Your task to perform on an android device: Clear the shopping cart on walmart. Add usb-a to the cart on walmart Image 0: 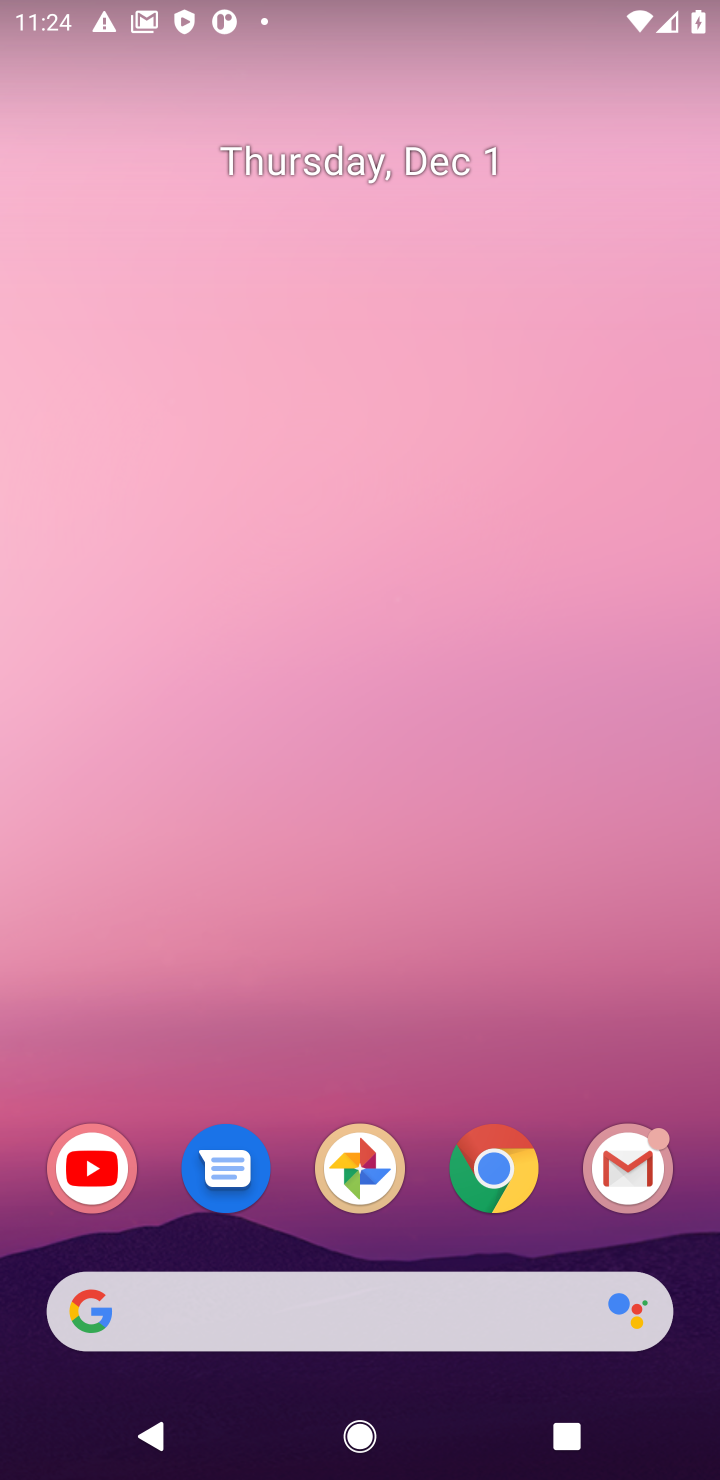
Step 0: click (500, 1173)
Your task to perform on an android device: Clear the shopping cart on walmart. Add usb-a to the cart on walmart Image 1: 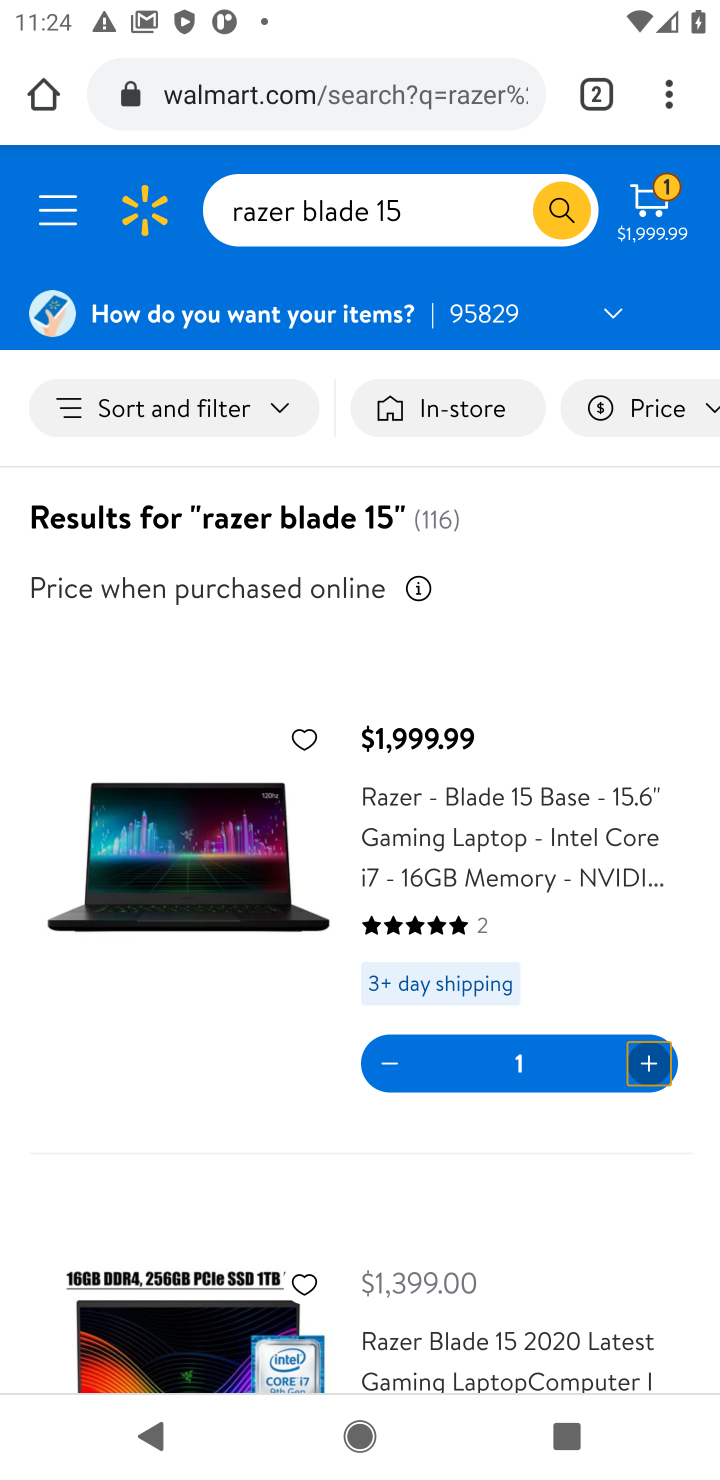
Step 1: click (658, 221)
Your task to perform on an android device: Clear the shopping cart on walmart. Add usb-a to the cart on walmart Image 2: 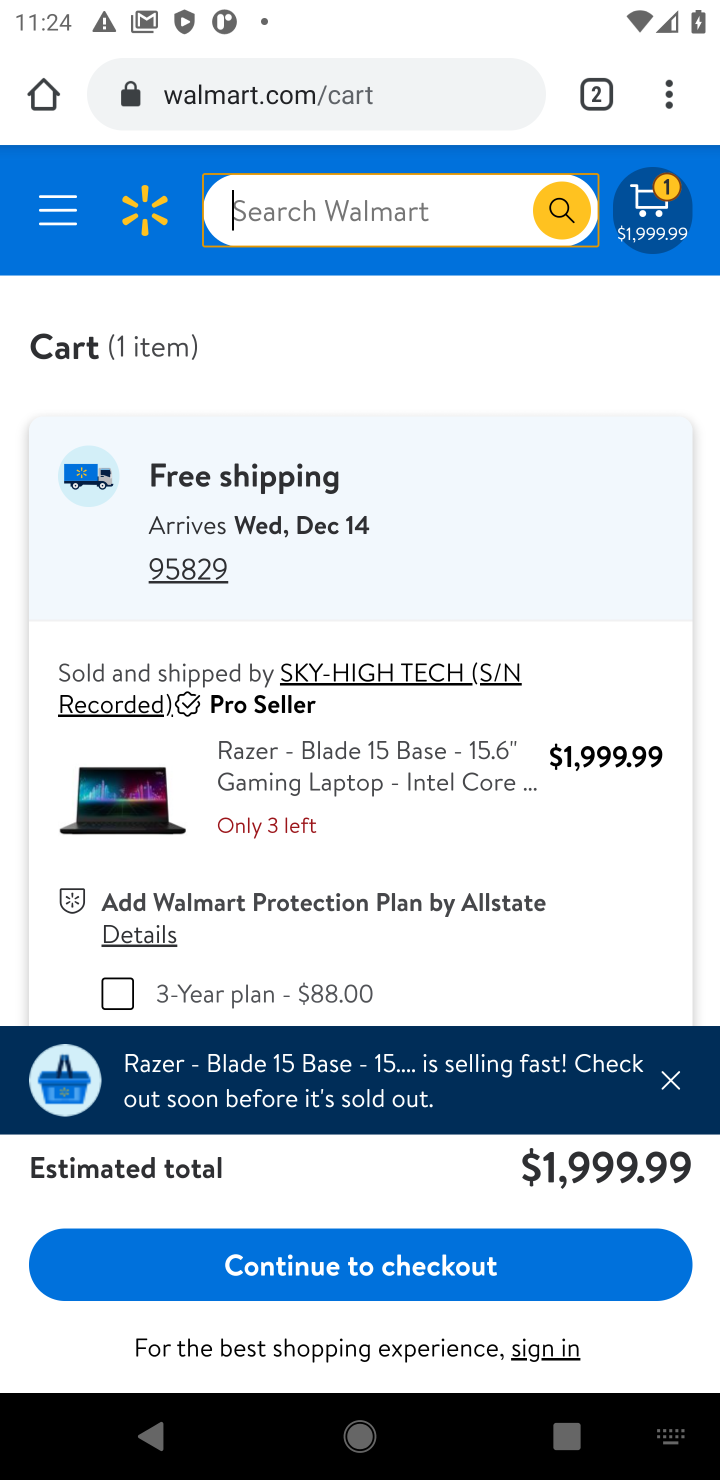
Step 2: drag from (489, 613) to (460, 318)
Your task to perform on an android device: Clear the shopping cart on walmart. Add usb-a to the cart on walmart Image 3: 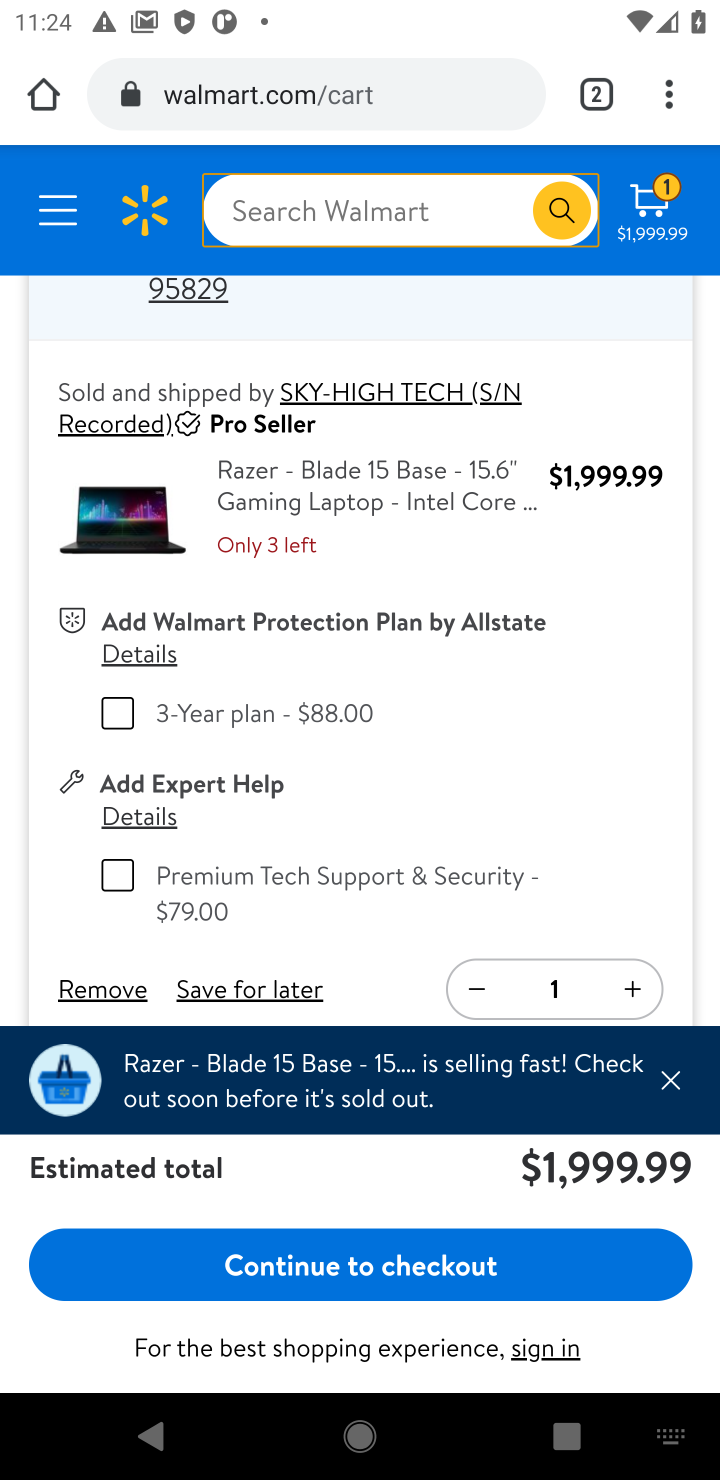
Step 3: drag from (653, 744) to (595, 384)
Your task to perform on an android device: Clear the shopping cart on walmart. Add usb-a to the cart on walmart Image 4: 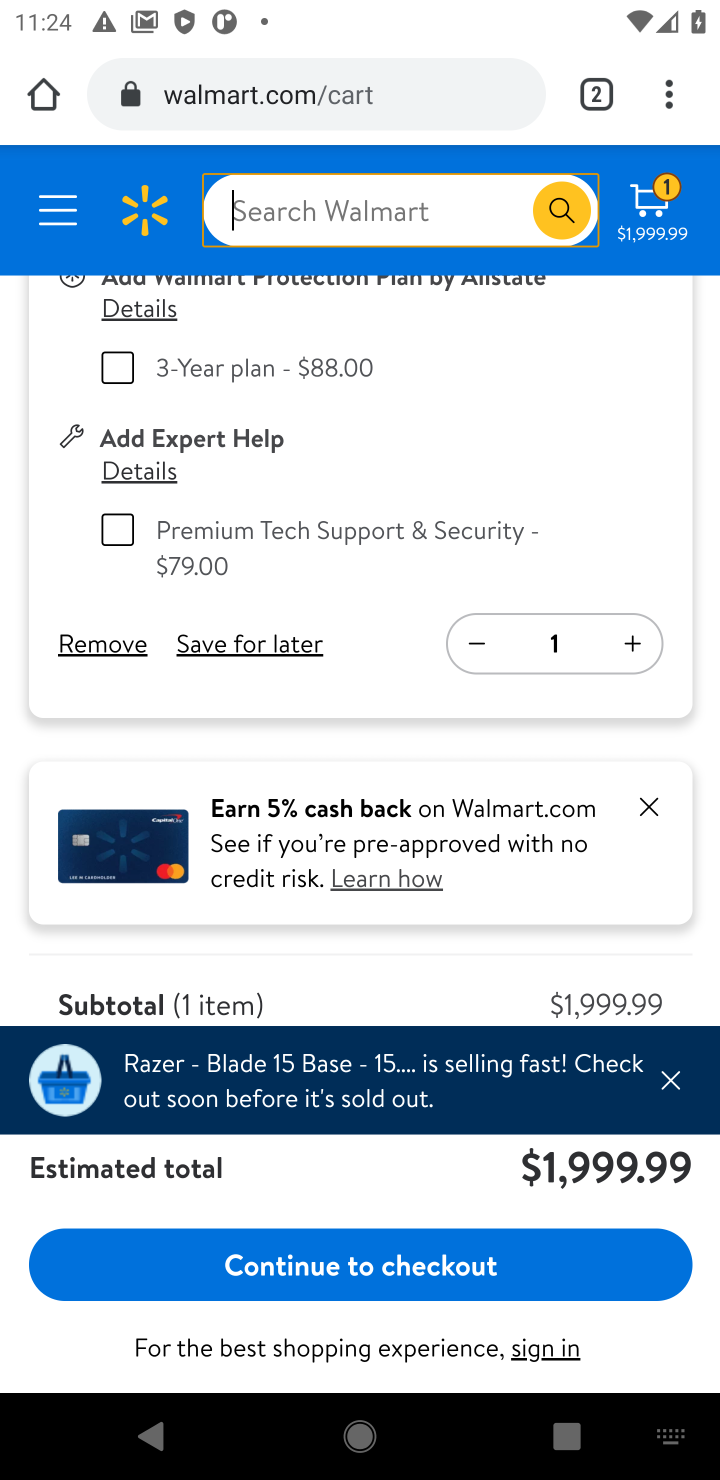
Step 4: click (90, 650)
Your task to perform on an android device: Clear the shopping cart on walmart. Add usb-a to the cart on walmart Image 5: 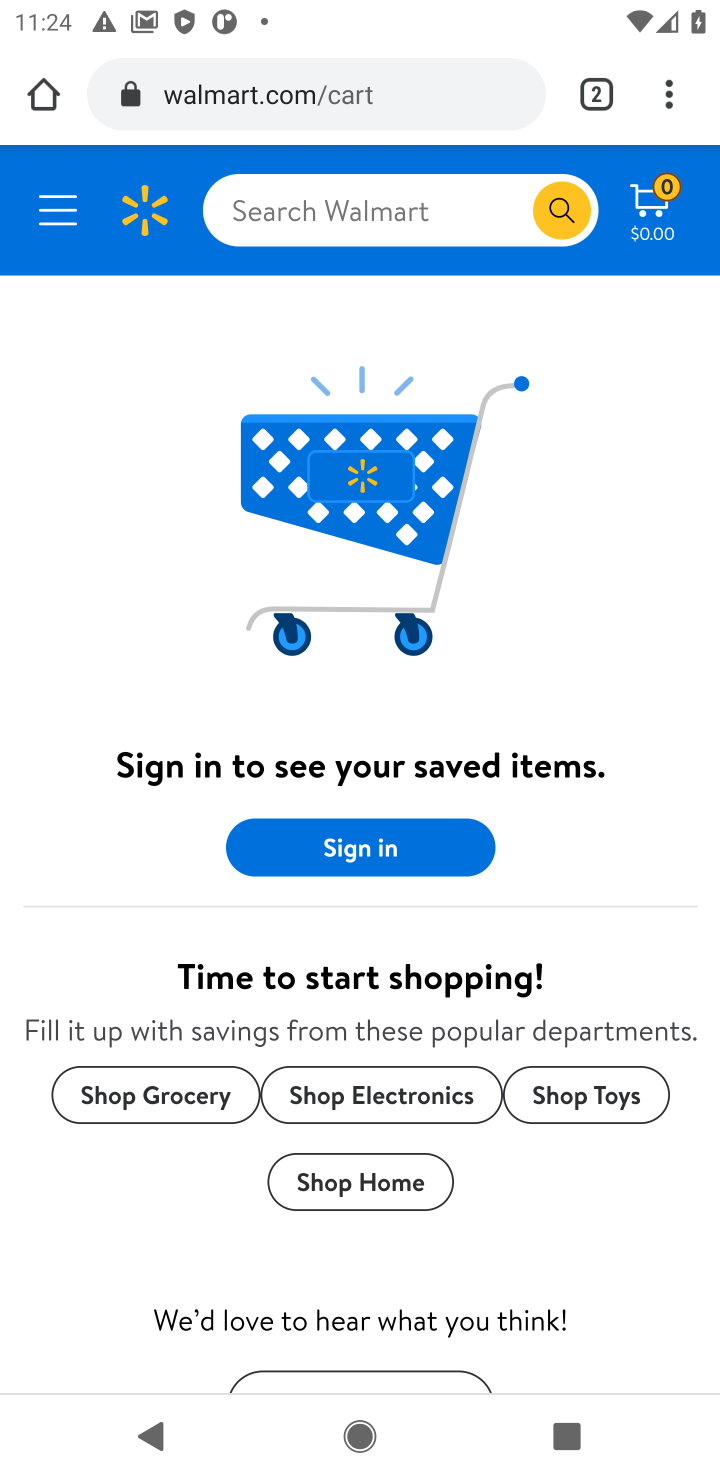
Step 5: click (304, 214)
Your task to perform on an android device: Clear the shopping cart on walmart. Add usb-a to the cart on walmart Image 6: 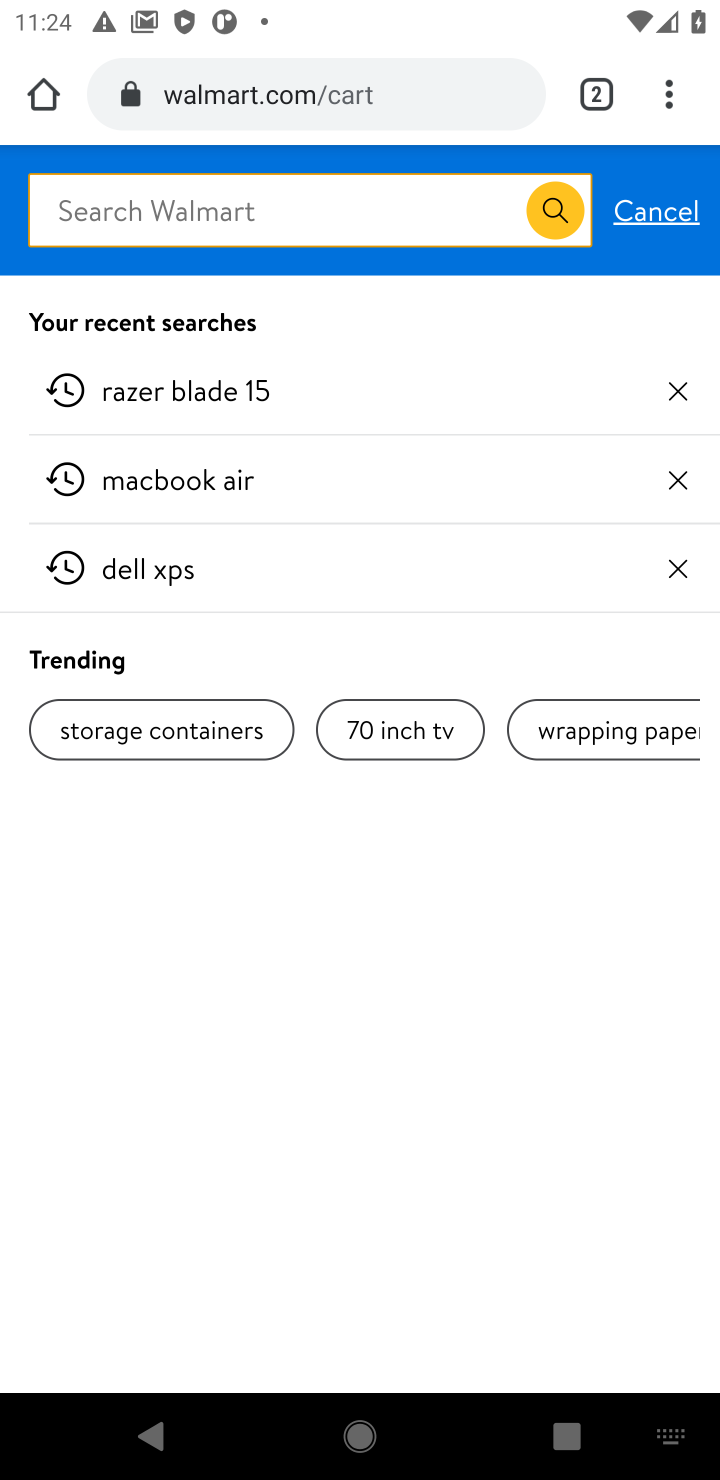
Step 6: type "usb-a"
Your task to perform on an android device: Clear the shopping cart on walmart. Add usb-a to the cart on walmart Image 7: 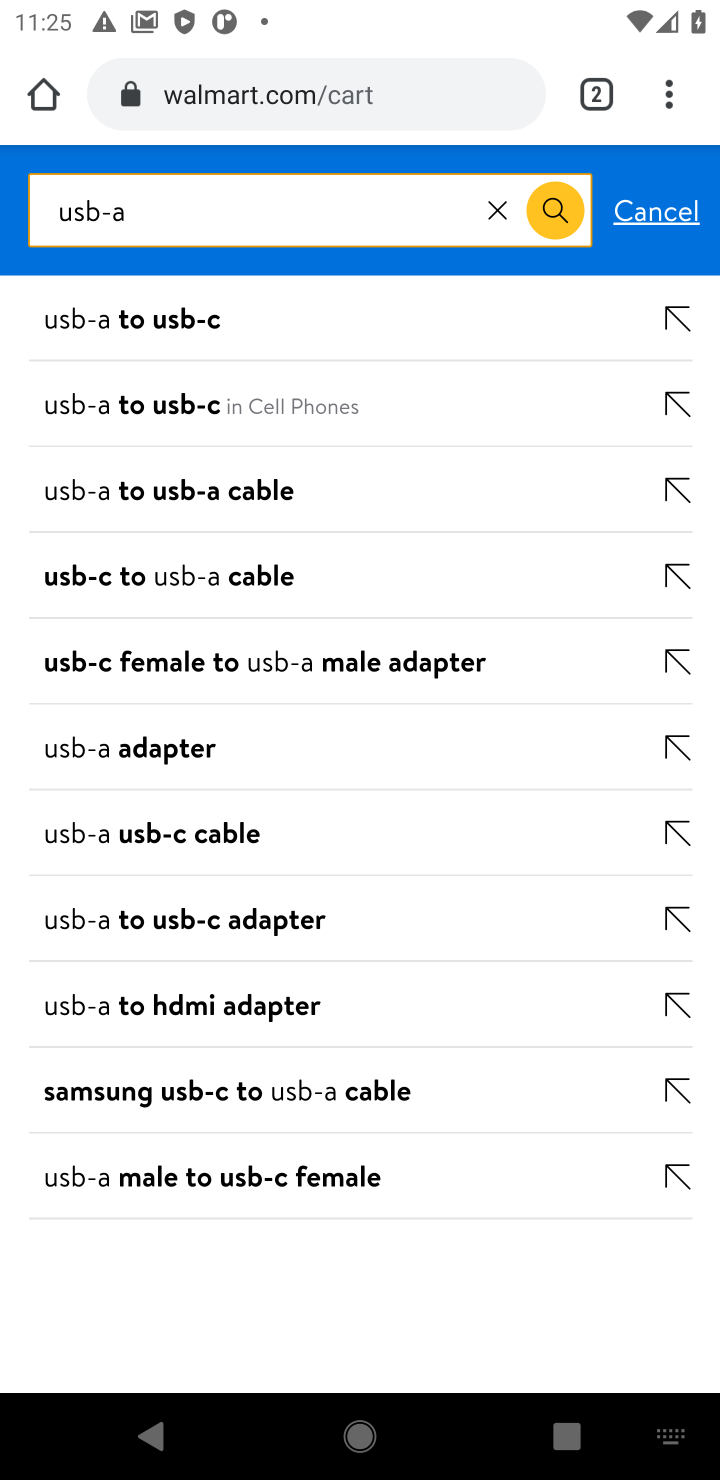
Step 7: click (546, 220)
Your task to perform on an android device: Clear the shopping cart on walmart. Add usb-a to the cart on walmart Image 8: 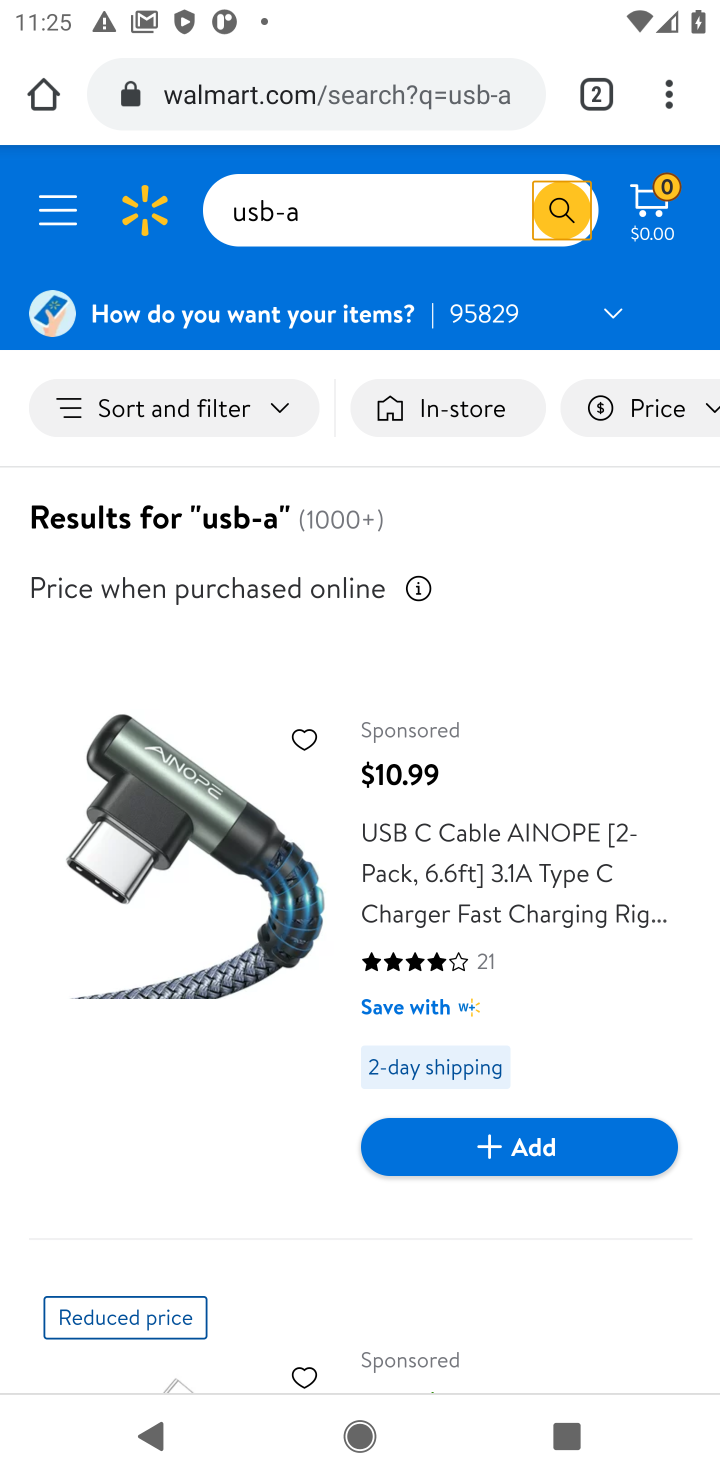
Step 8: drag from (465, 889) to (473, 616)
Your task to perform on an android device: Clear the shopping cart on walmart. Add usb-a to the cart on walmart Image 9: 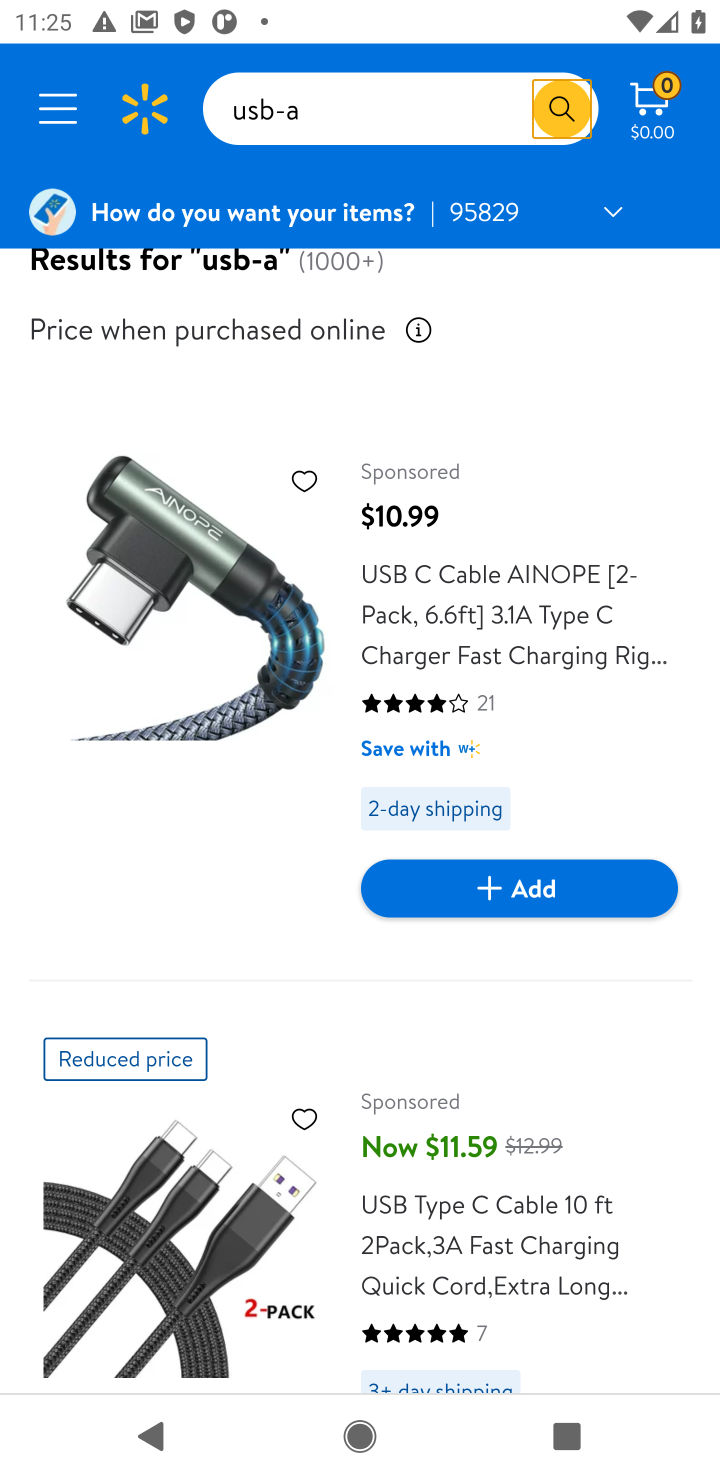
Step 9: drag from (397, 1012) to (387, 573)
Your task to perform on an android device: Clear the shopping cart on walmart. Add usb-a to the cart on walmart Image 10: 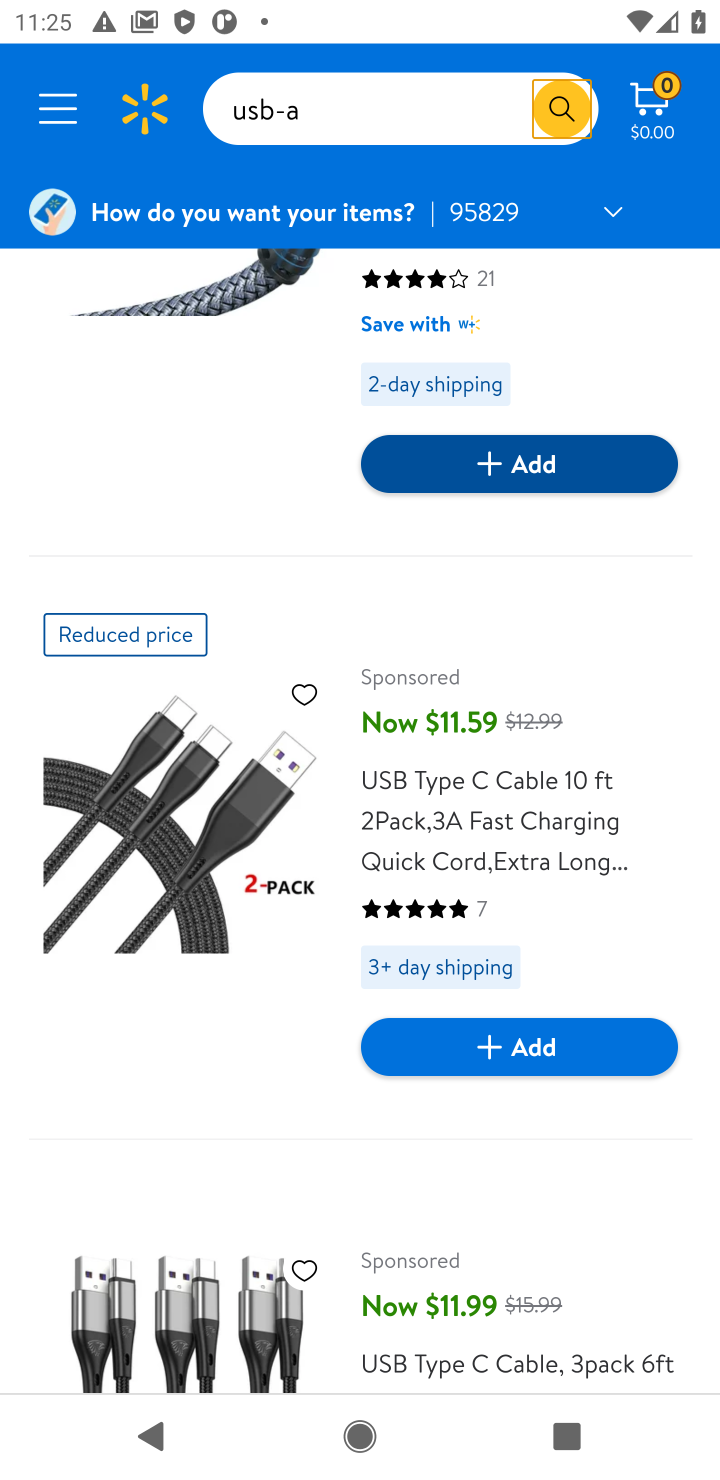
Step 10: drag from (335, 1029) to (303, 579)
Your task to perform on an android device: Clear the shopping cart on walmart. Add usb-a to the cart on walmart Image 11: 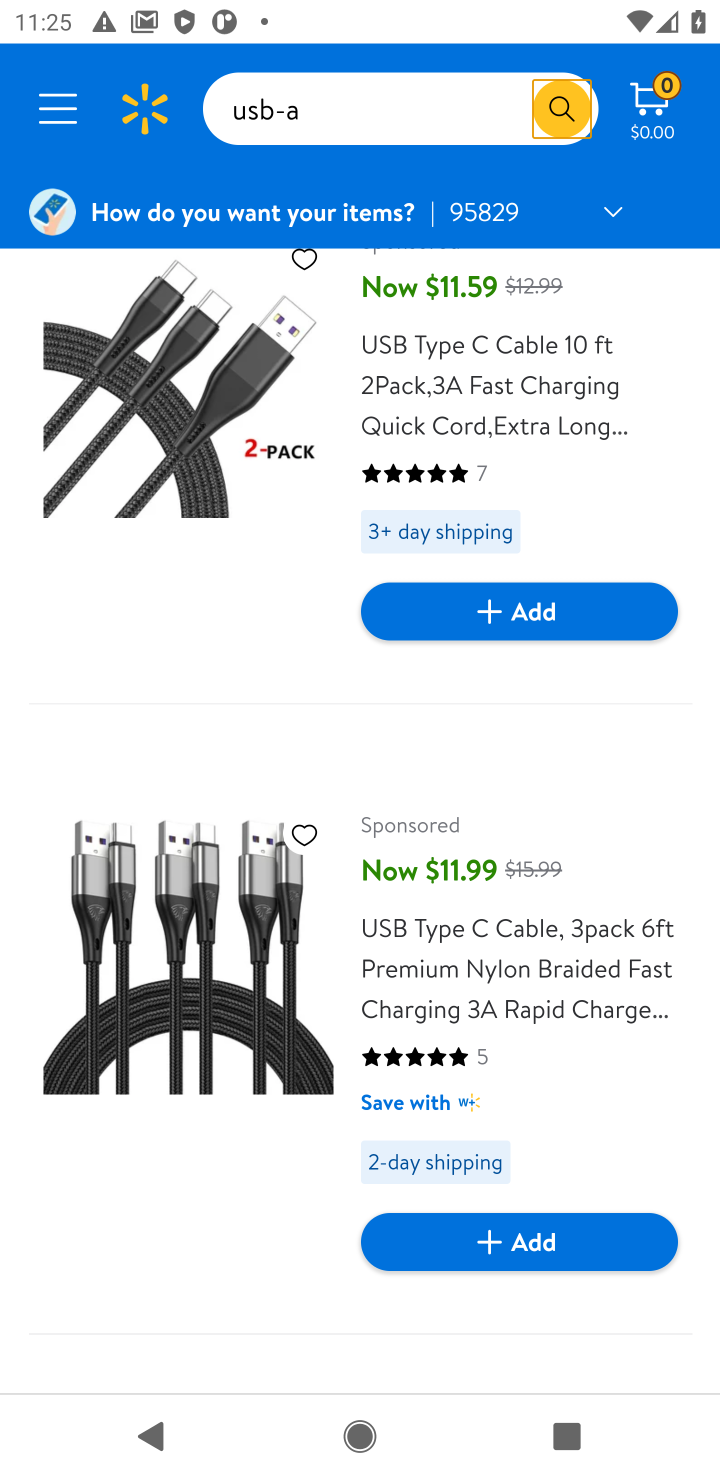
Step 11: drag from (241, 957) to (249, 651)
Your task to perform on an android device: Clear the shopping cart on walmart. Add usb-a to the cart on walmart Image 12: 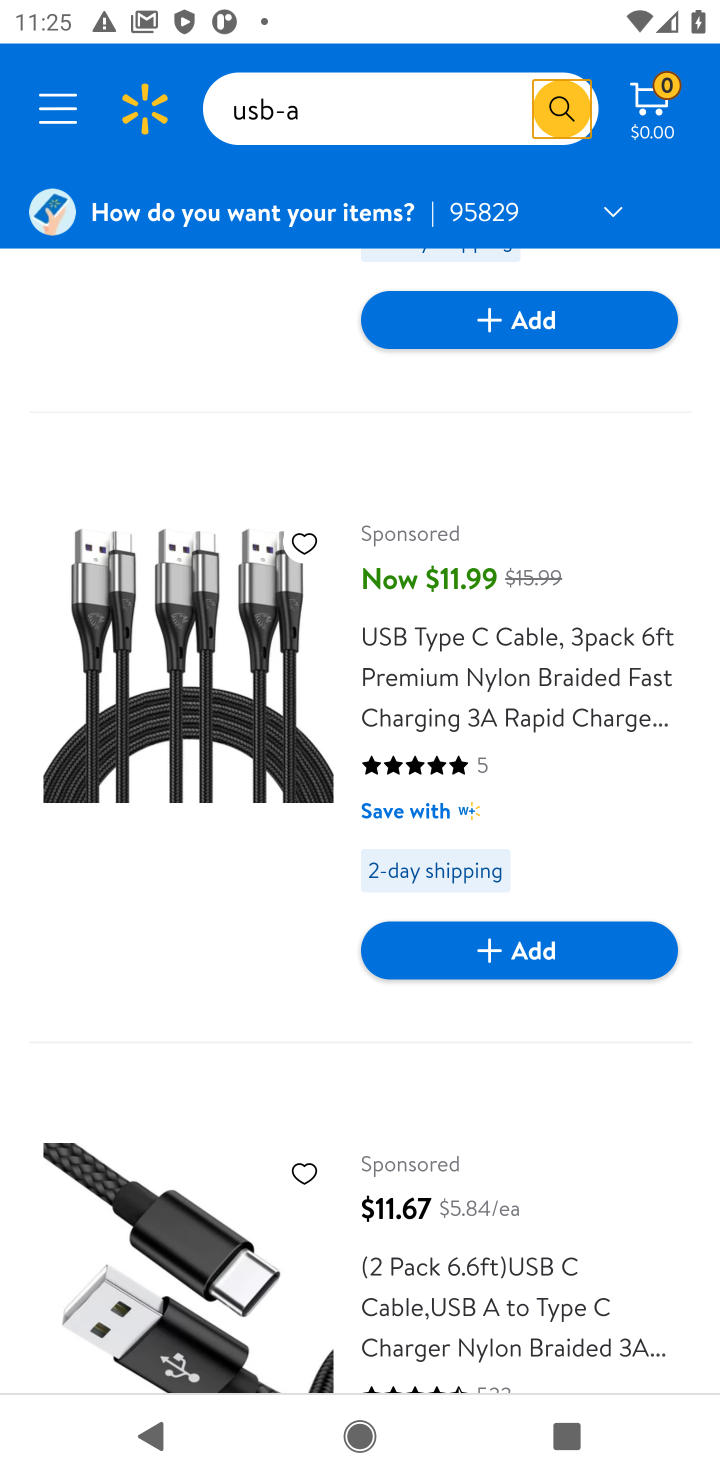
Step 12: drag from (251, 967) to (238, 579)
Your task to perform on an android device: Clear the shopping cart on walmart. Add usb-a to the cart on walmart Image 13: 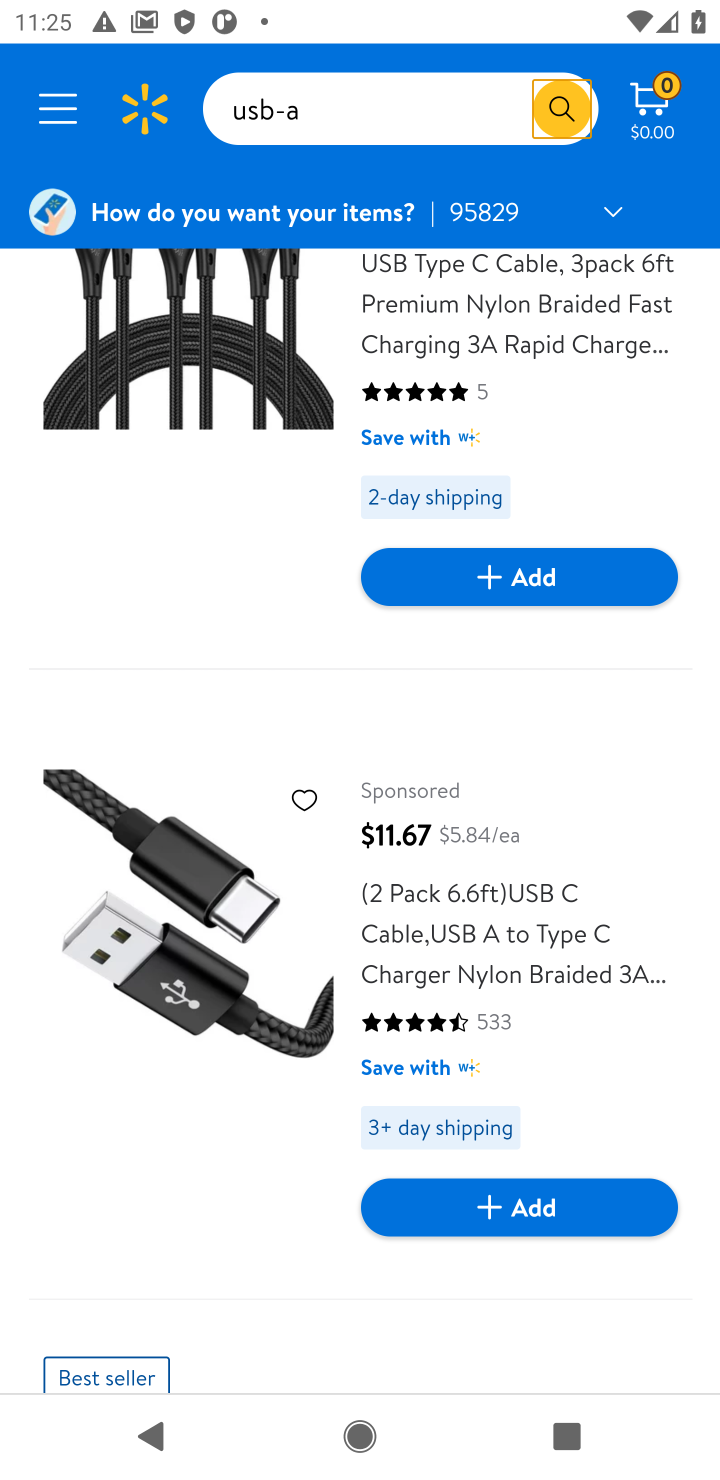
Step 13: click (471, 1205)
Your task to perform on an android device: Clear the shopping cart on walmart. Add usb-a to the cart on walmart Image 14: 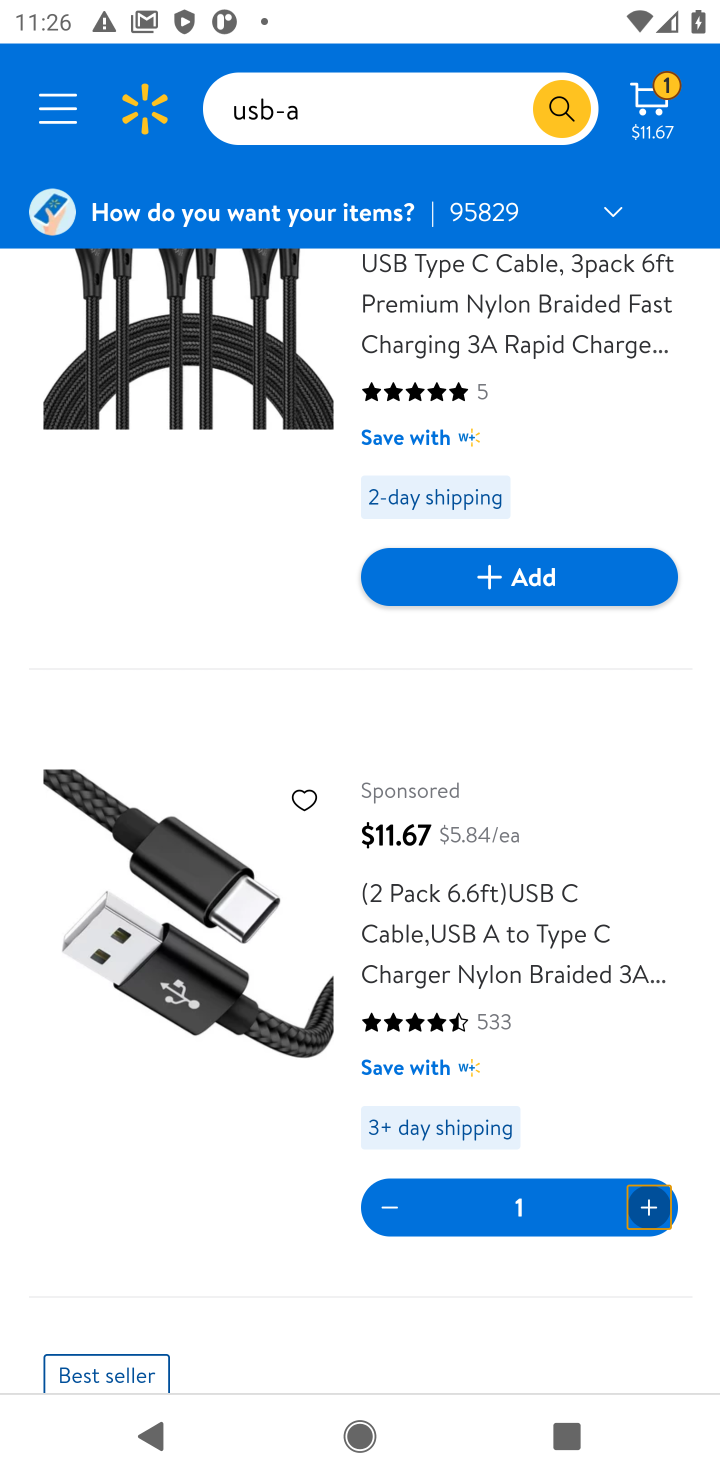
Step 14: task complete